Your task to perform on an android device: open app "Duolingo: language lessons" (install if not already installed) and enter user name: "omens@gmail.com" and password: "casks" Image 0: 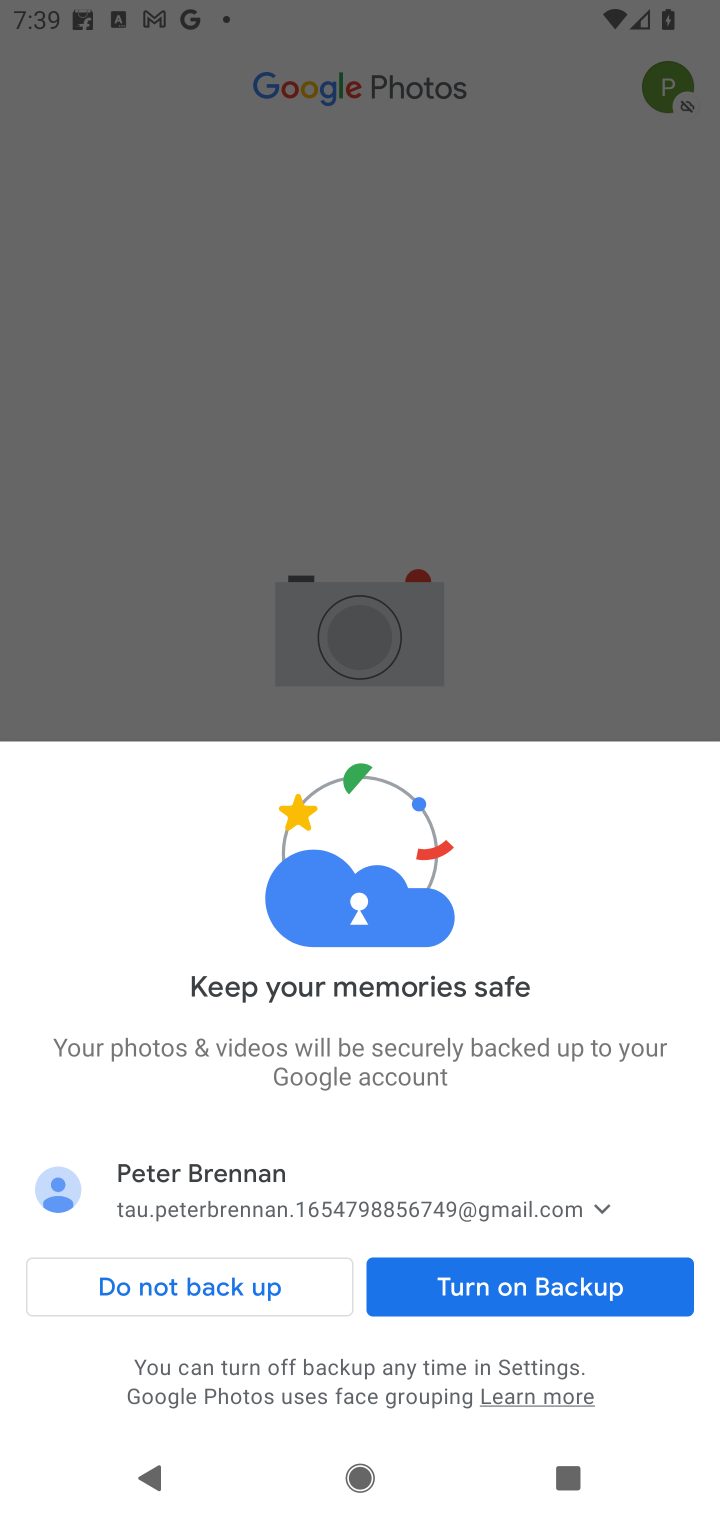
Step 0: press home button
Your task to perform on an android device: open app "Duolingo: language lessons" (install if not already installed) and enter user name: "omens@gmail.com" and password: "casks" Image 1: 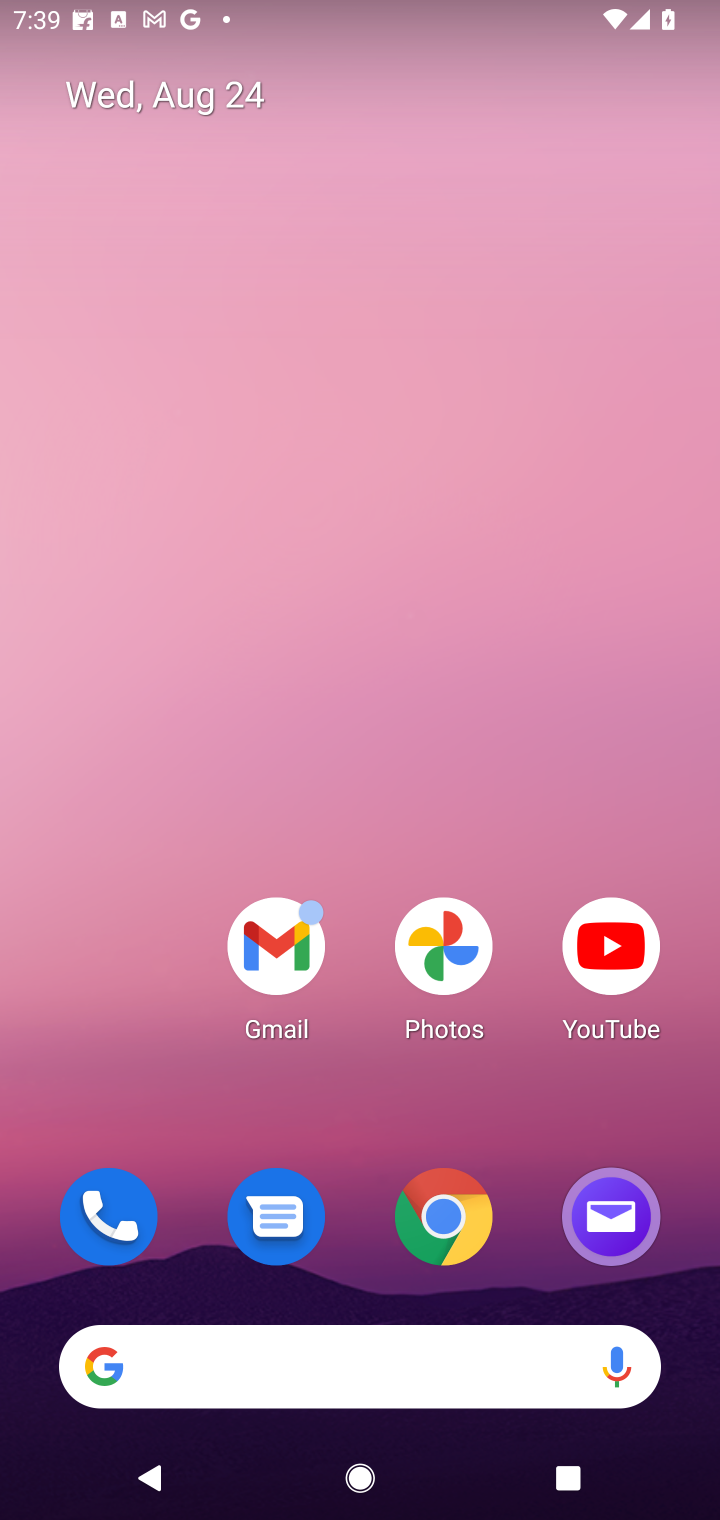
Step 1: drag from (353, 1047) to (337, 105)
Your task to perform on an android device: open app "Duolingo: language lessons" (install if not already installed) and enter user name: "omens@gmail.com" and password: "casks" Image 2: 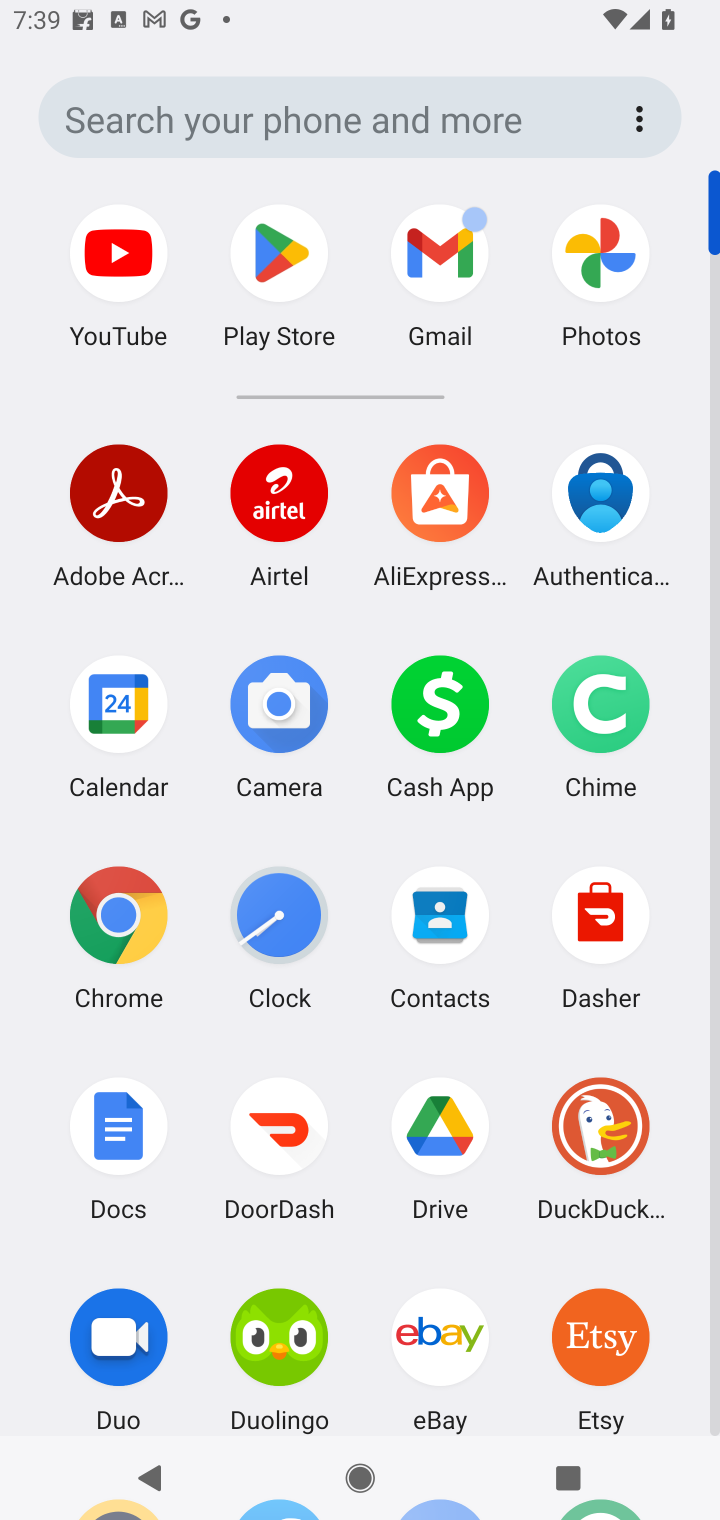
Step 2: click (290, 268)
Your task to perform on an android device: open app "Duolingo: language lessons" (install if not already installed) and enter user name: "omens@gmail.com" and password: "casks" Image 3: 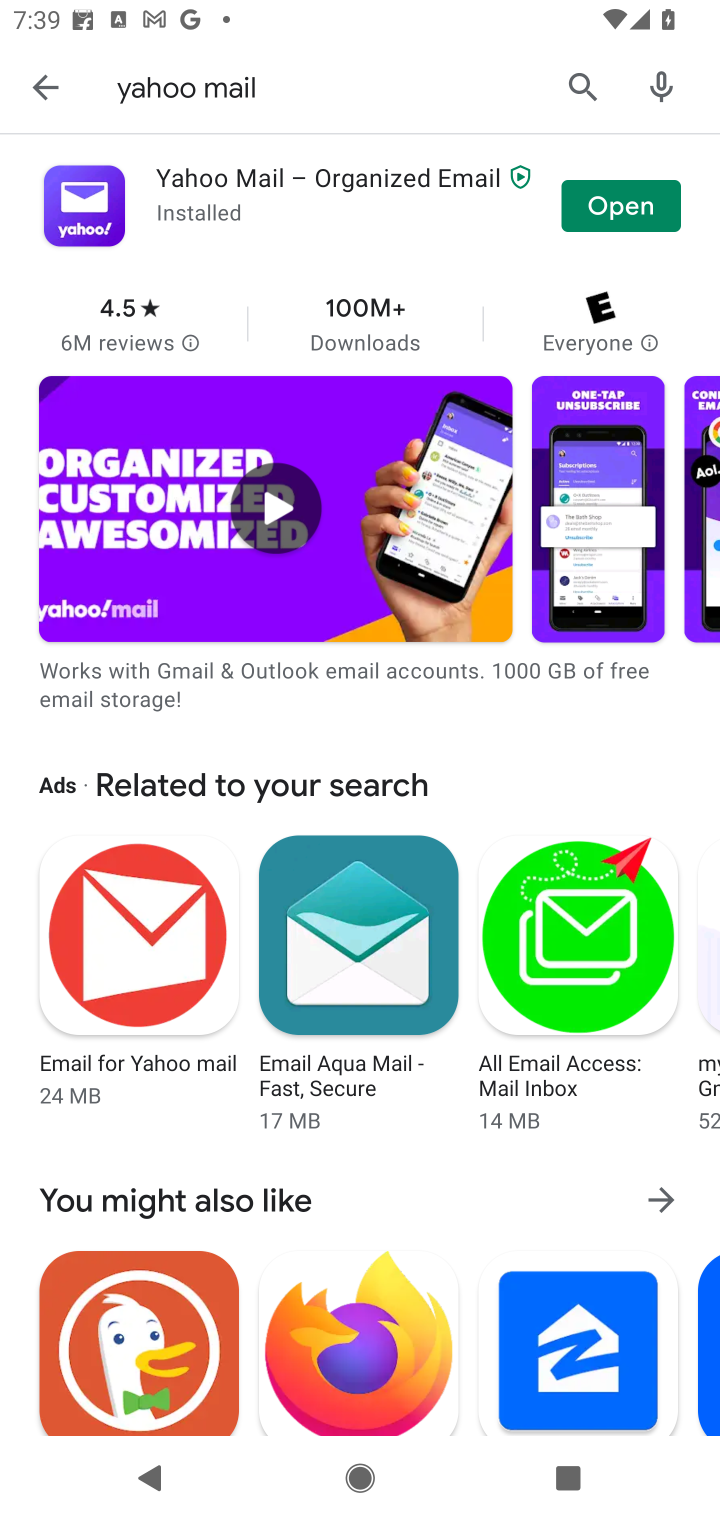
Step 3: click (580, 92)
Your task to perform on an android device: open app "Duolingo: language lessons" (install if not already installed) and enter user name: "omens@gmail.com" and password: "casks" Image 4: 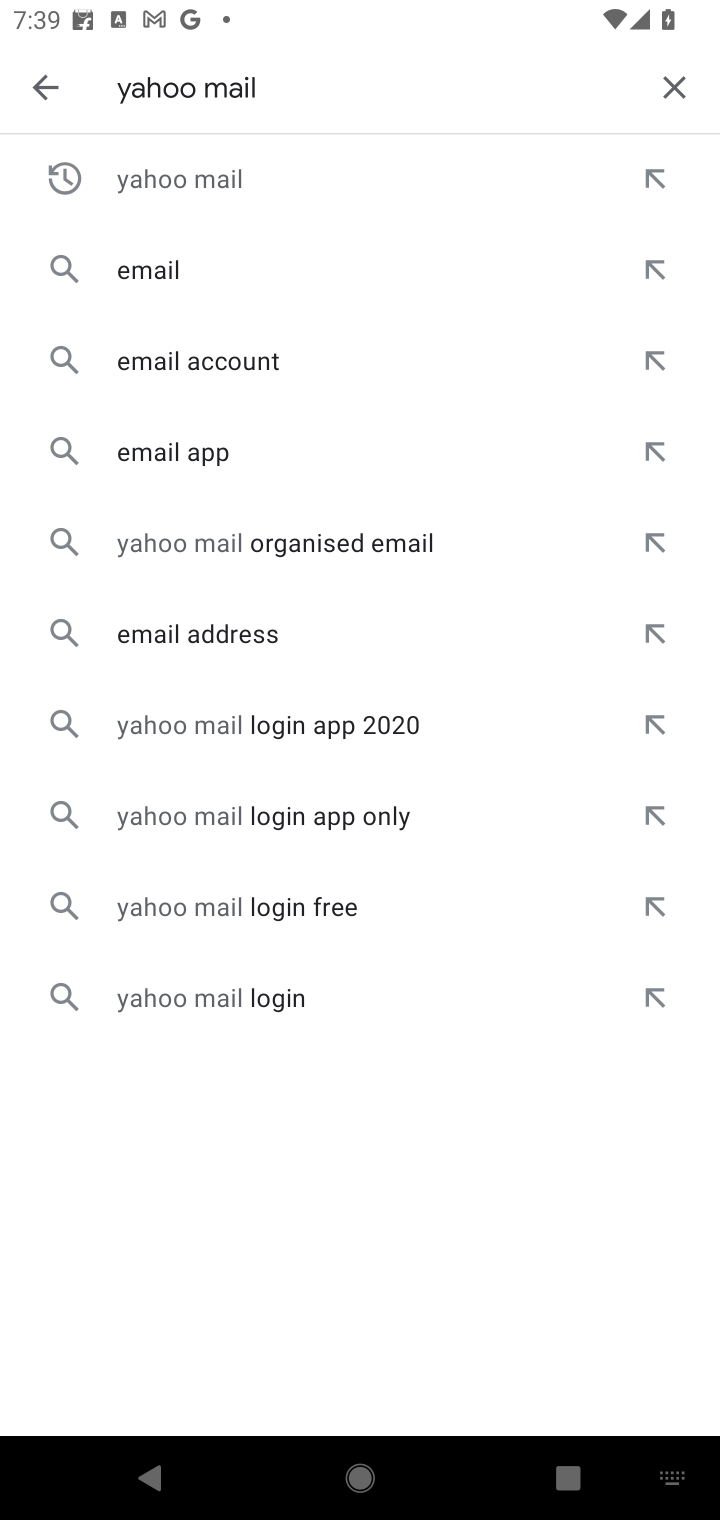
Step 4: click (671, 92)
Your task to perform on an android device: open app "Duolingo: language lessons" (install if not already installed) and enter user name: "omens@gmail.com" and password: "casks" Image 5: 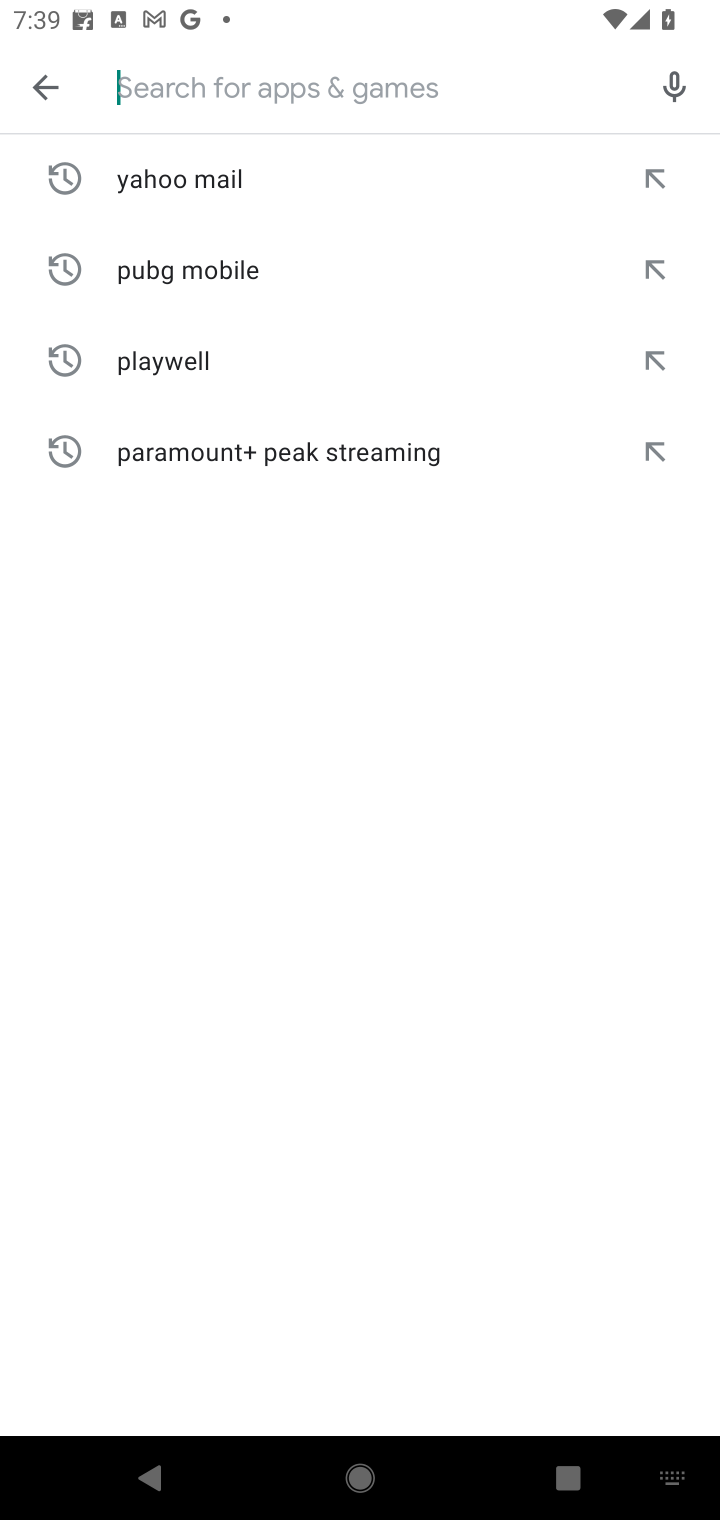
Step 5: type "Duolingo: language lessons"
Your task to perform on an android device: open app "Duolingo: language lessons" (install if not already installed) and enter user name: "omens@gmail.com" and password: "casks" Image 6: 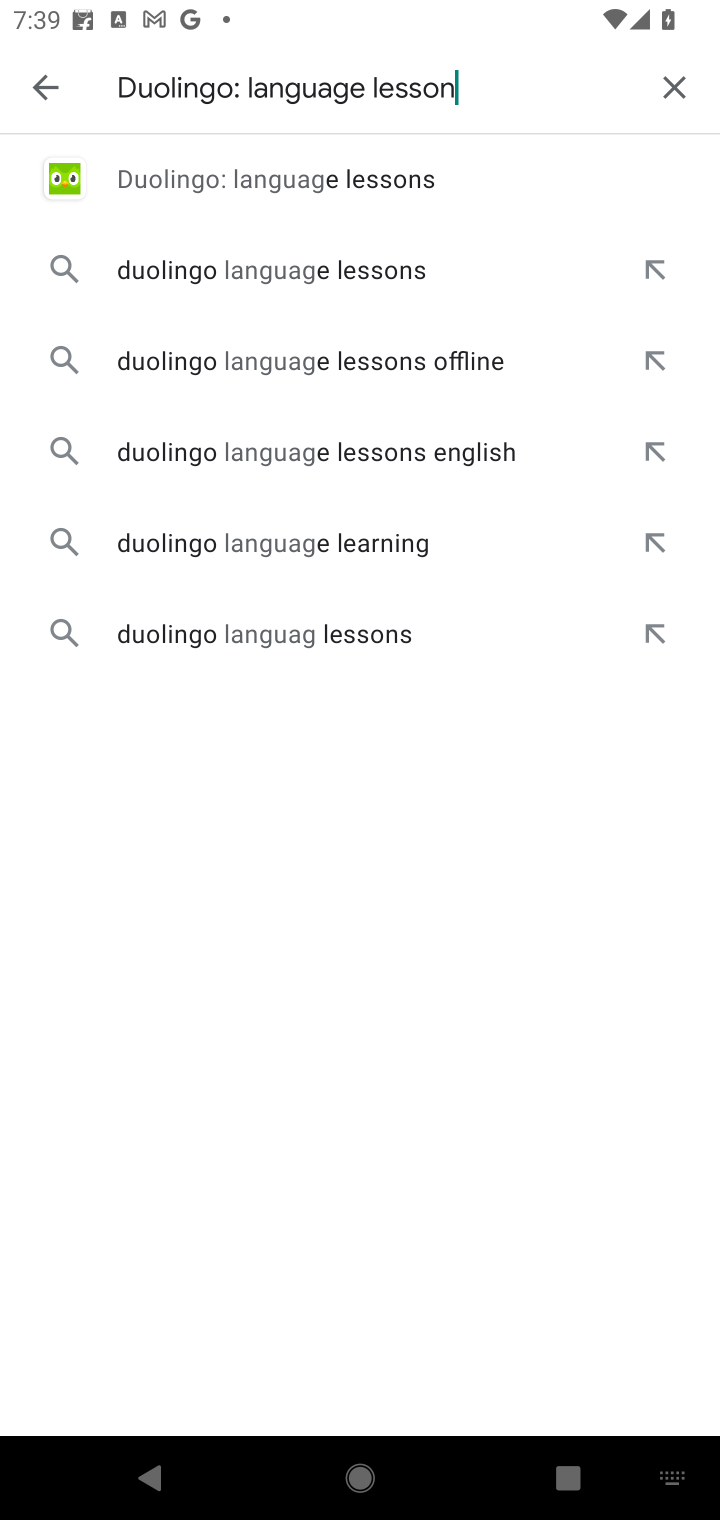
Step 6: type ""
Your task to perform on an android device: open app "Duolingo: language lessons" (install if not already installed) and enter user name: "omens@gmail.com" and password: "casks" Image 7: 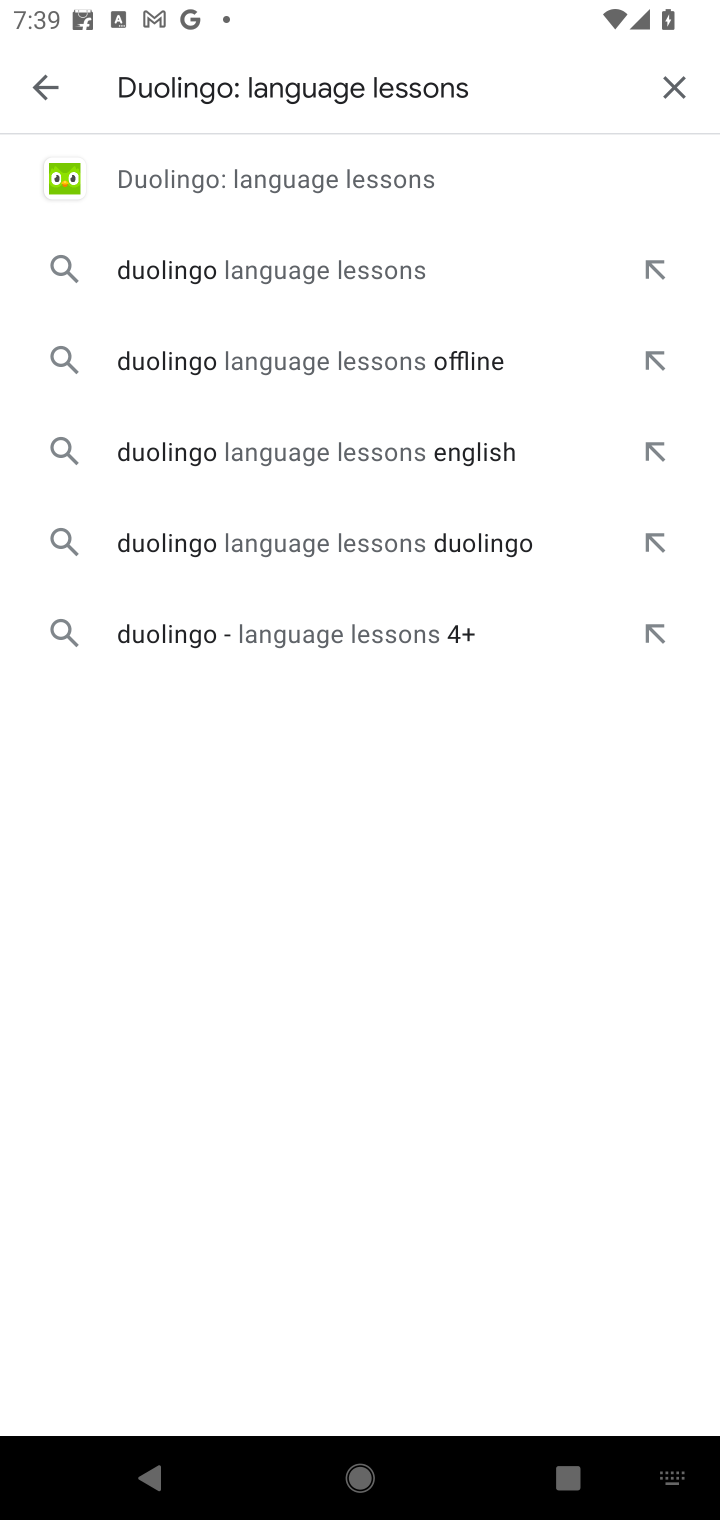
Step 7: click (278, 197)
Your task to perform on an android device: open app "Duolingo: language lessons" (install if not already installed) and enter user name: "omens@gmail.com" and password: "casks" Image 8: 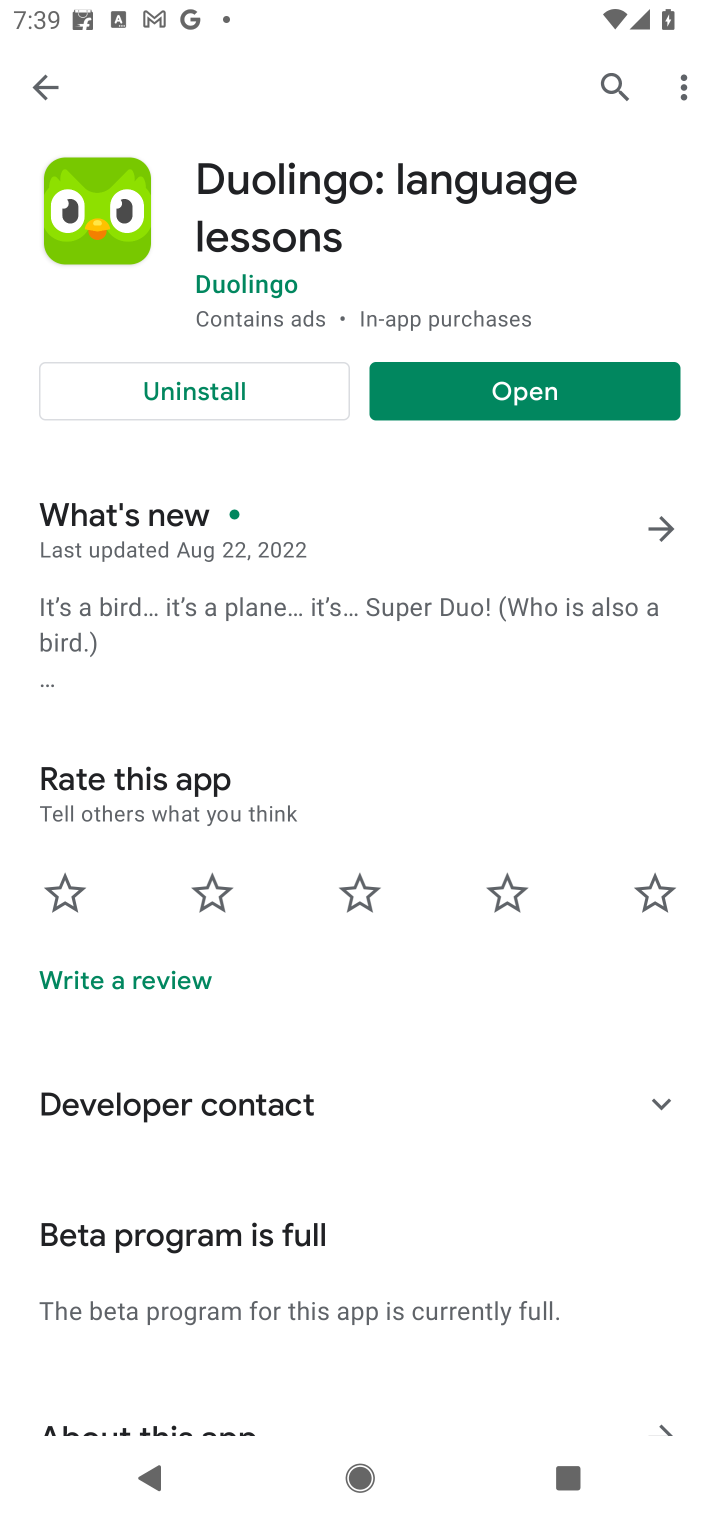
Step 8: click (509, 362)
Your task to perform on an android device: open app "Duolingo: language lessons" (install if not already installed) and enter user name: "omens@gmail.com" and password: "casks" Image 9: 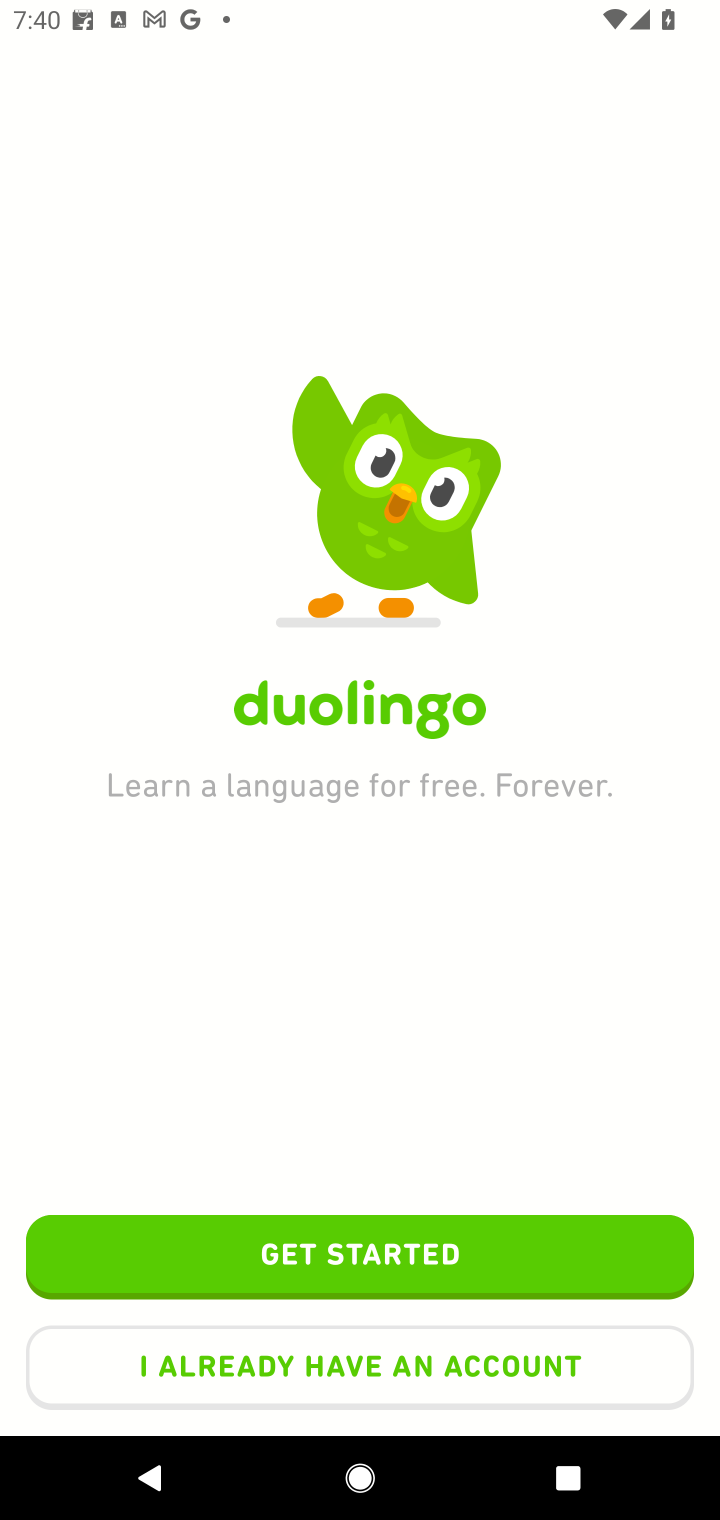
Step 9: task complete